Your task to perform on an android device: Check the news Image 0: 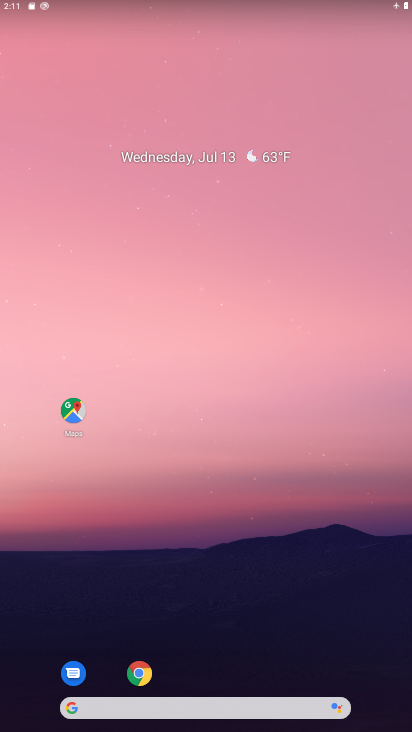
Step 0: click (123, 659)
Your task to perform on an android device: Check the news Image 1: 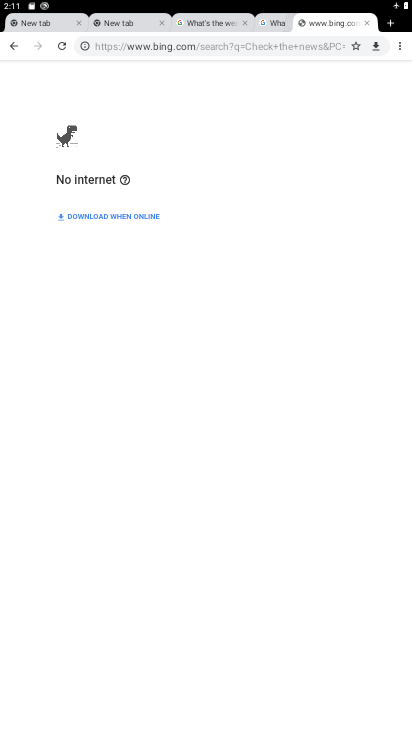
Step 1: click (397, 16)
Your task to perform on an android device: Check the news Image 2: 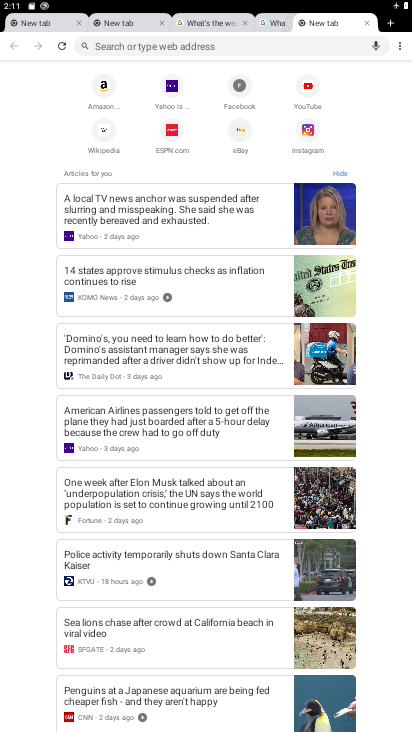
Step 2: click (167, 37)
Your task to perform on an android device: Check the news Image 3: 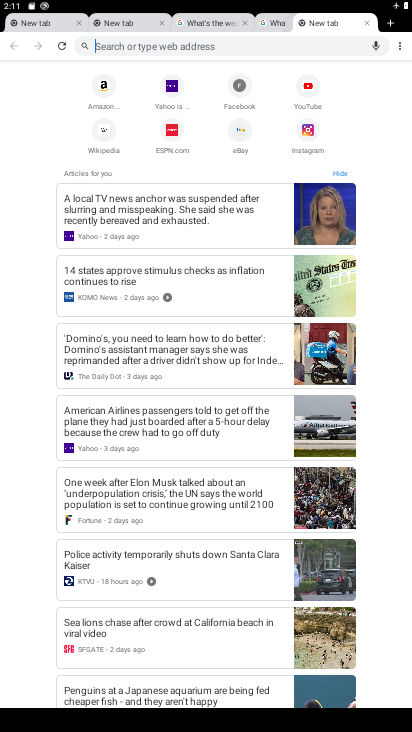
Step 3: type "Check the news "
Your task to perform on an android device: Check the news Image 4: 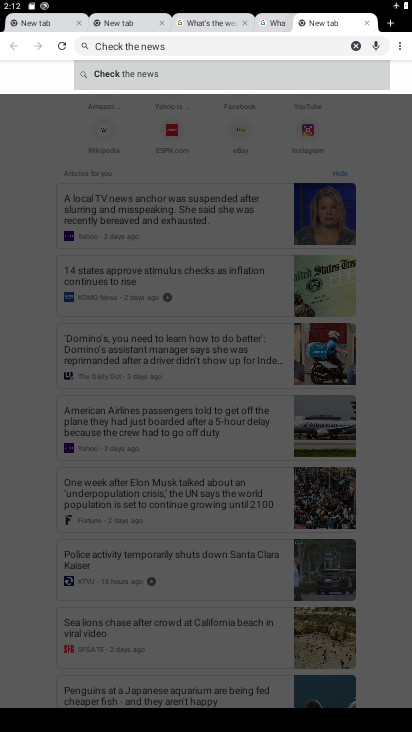
Step 4: click (167, 65)
Your task to perform on an android device: Check the news Image 5: 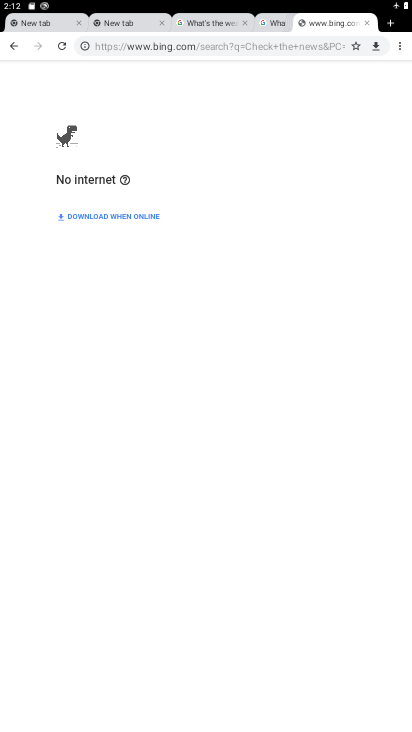
Step 5: task complete